Your task to perform on an android device: turn off priority inbox in the gmail app Image 0: 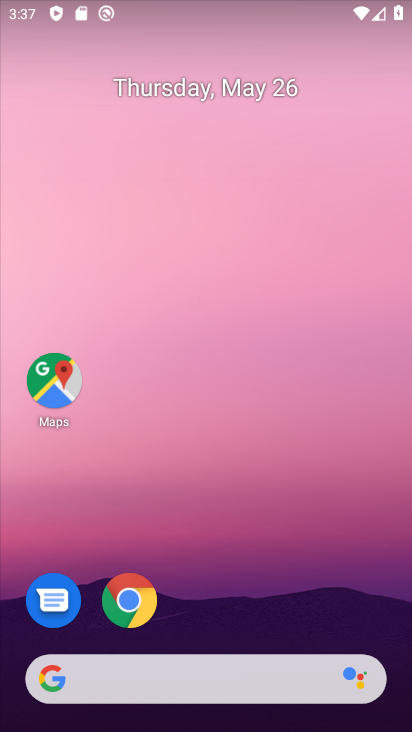
Step 0: drag from (203, 642) to (253, 42)
Your task to perform on an android device: turn off priority inbox in the gmail app Image 1: 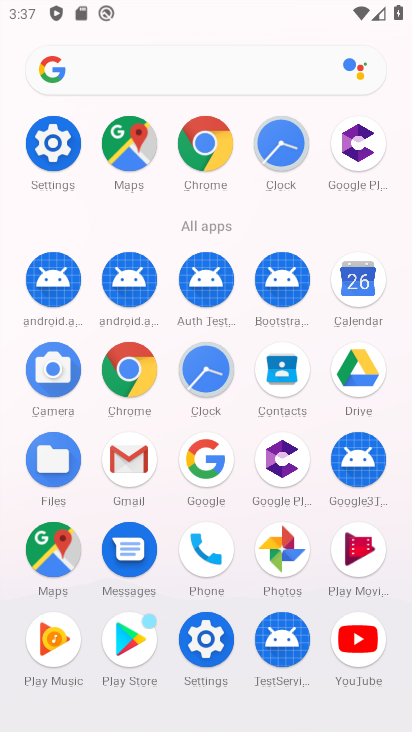
Step 1: click (128, 462)
Your task to perform on an android device: turn off priority inbox in the gmail app Image 2: 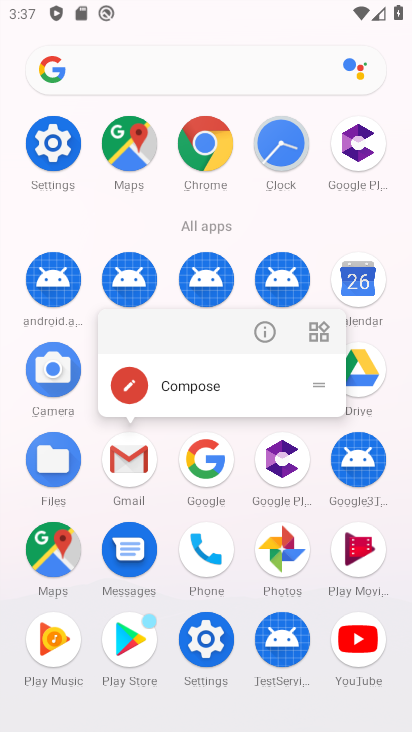
Step 2: click (128, 461)
Your task to perform on an android device: turn off priority inbox in the gmail app Image 3: 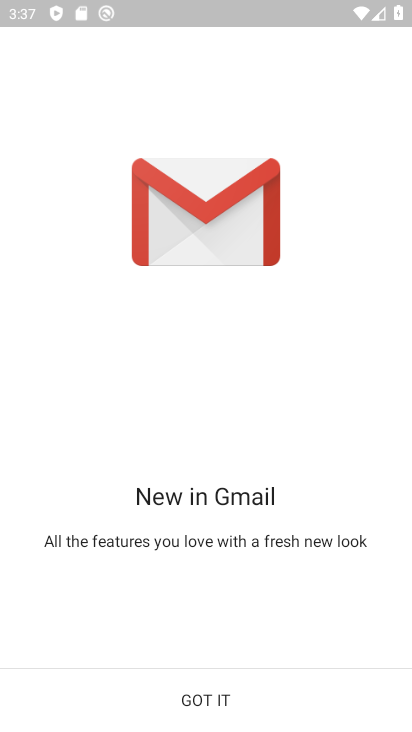
Step 3: click (229, 700)
Your task to perform on an android device: turn off priority inbox in the gmail app Image 4: 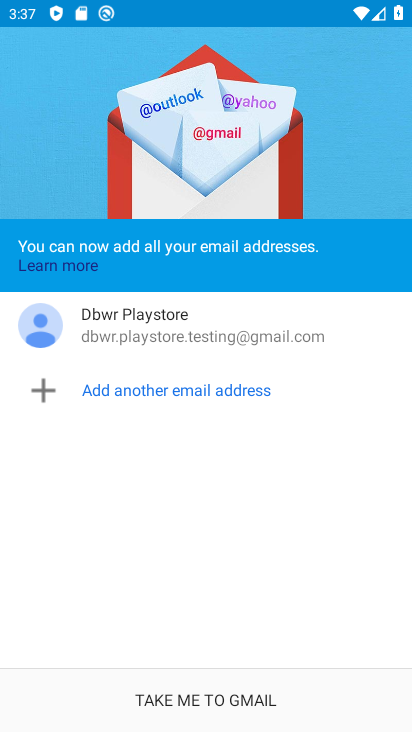
Step 4: click (230, 697)
Your task to perform on an android device: turn off priority inbox in the gmail app Image 5: 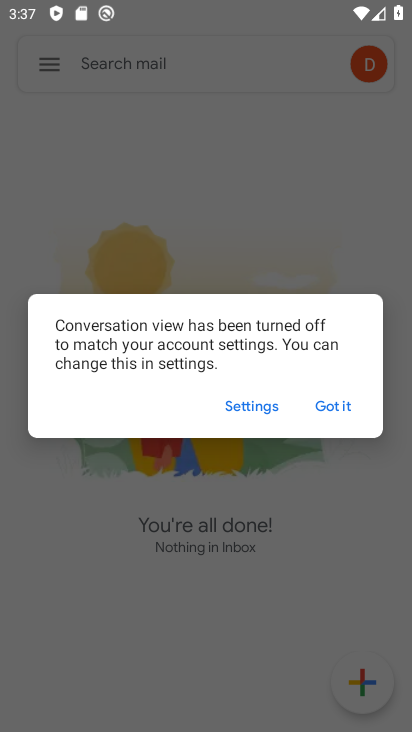
Step 5: click (323, 400)
Your task to perform on an android device: turn off priority inbox in the gmail app Image 6: 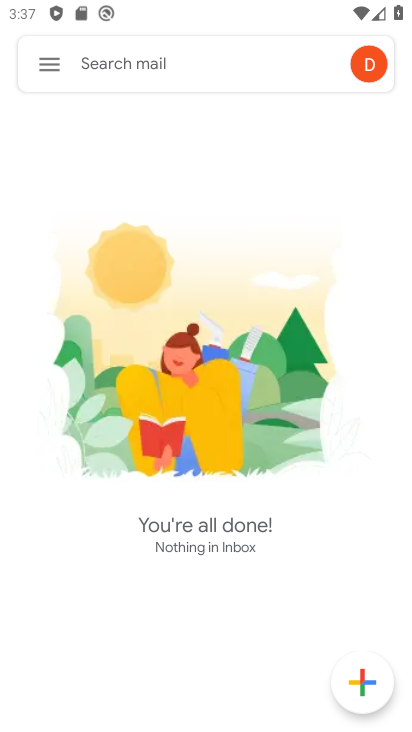
Step 6: click (63, 67)
Your task to perform on an android device: turn off priority inbox in the gmail app Image 7: 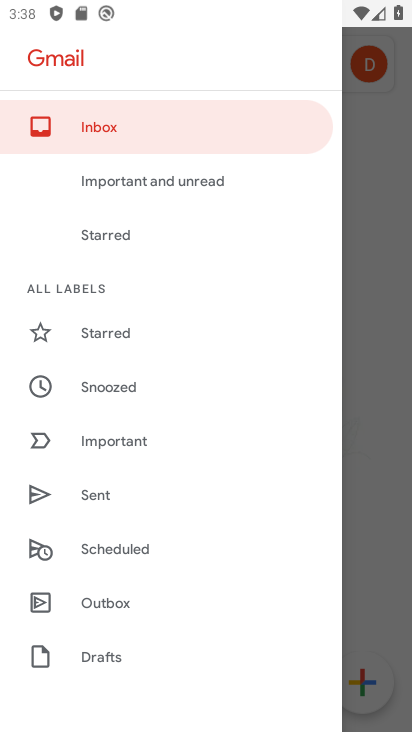
Step 7: drag from (119, 394) to (137, 137)
Your task to perform on an android device: turn off priority inbox in the gmail app Image 8: 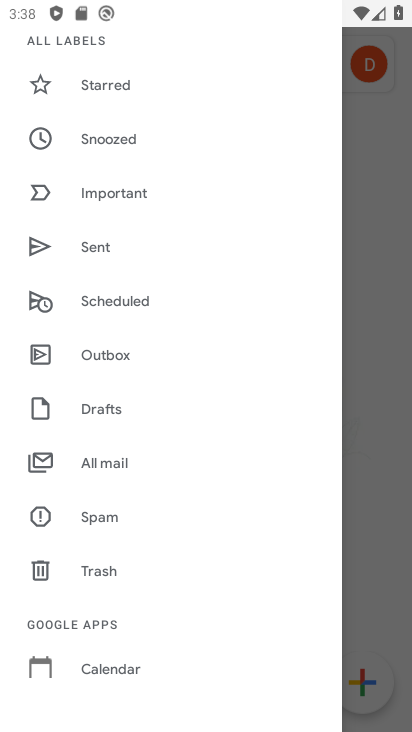
Step 8: drag from (123, 480) to (163, 140)
Your task to perform on an android device: turn off priority inbox in the gmail app Image 9: 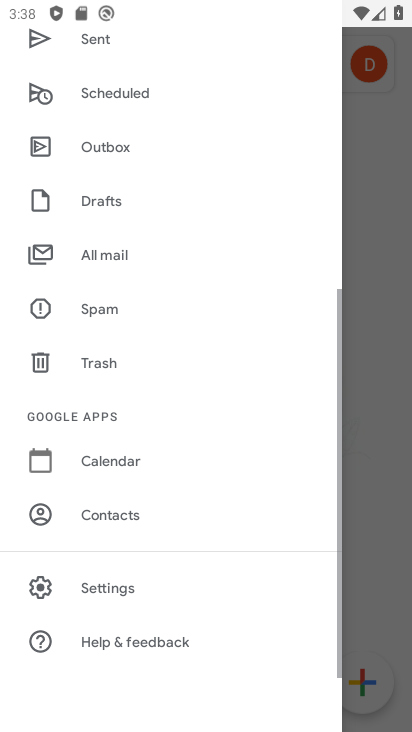
Step 9: click (109, 589)
Your task to perform on an android device: turn off priority inbox in the gmail app Image 10: 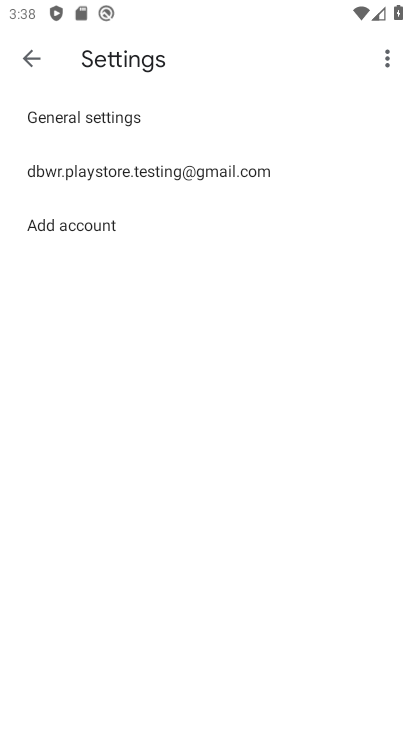
Step 10: click (137, 179)
Your task to perform on an android device: turn off priority inbox in the gmail app Image 11: 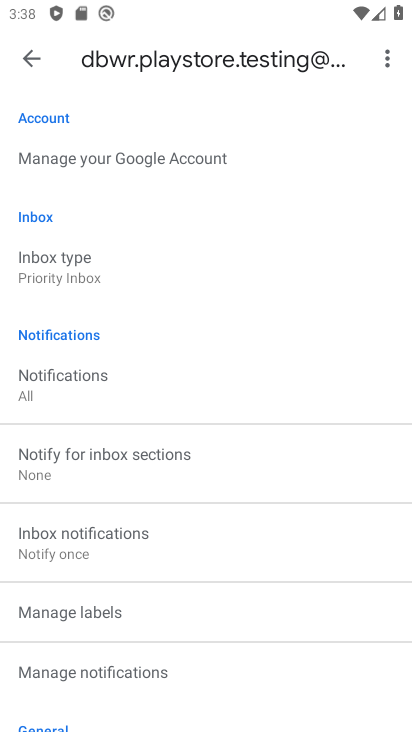
Step 11: click (91, 273)
Your task to perform on an android device: turn off priority inbox in the gmail app Image 12: 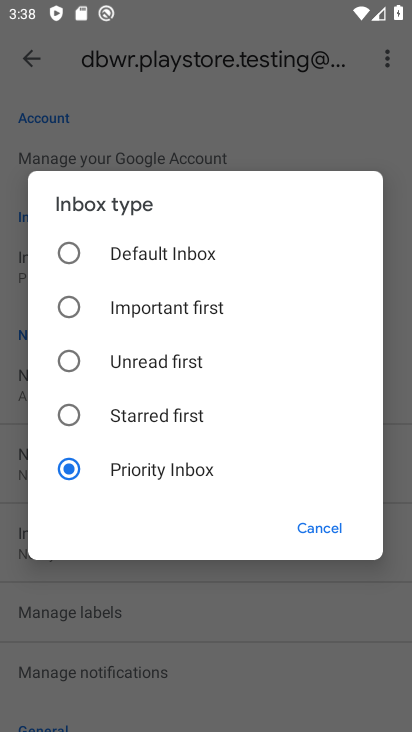
Step 12: click (108, 262)
Your task to perform on an android device: turn off priority inbox in the gmail app Image 13: 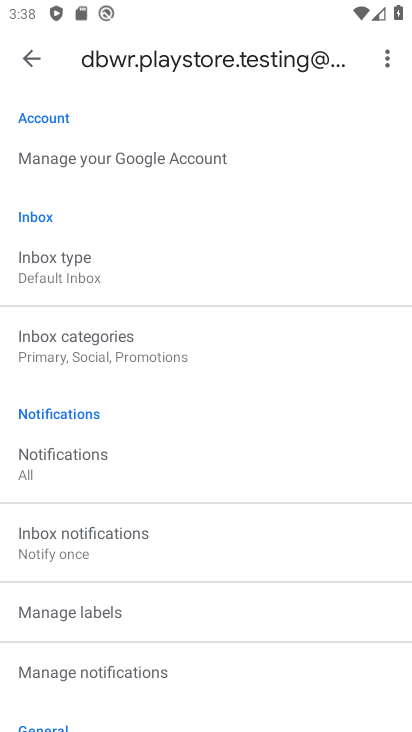
Step 13: task complete